Your task to perform on an android device: Open privacy settings Image 0: 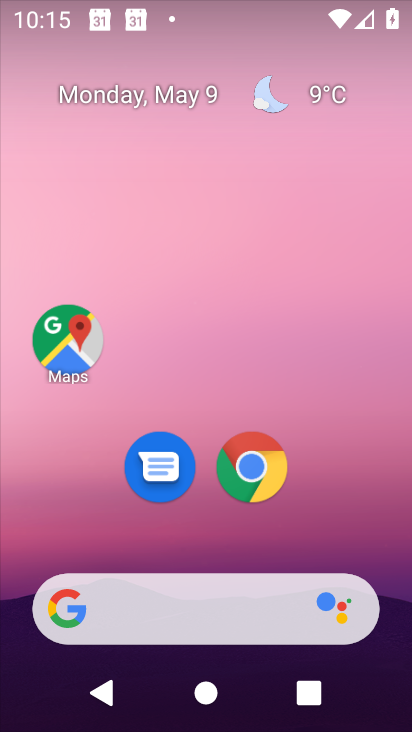
Step 0: drag from (339, 463) to (302, 8)
Your task to perform on an android device: Open privacy settings Image 1: 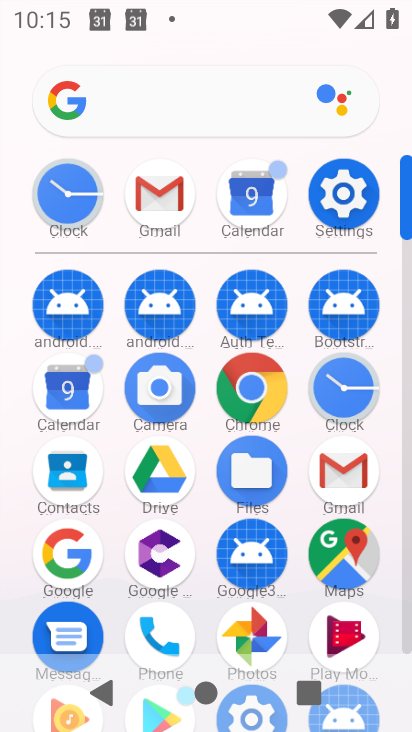
Step 1: click (340, 206)
Your task to perform on an android device: Open privacy settings Image 2: 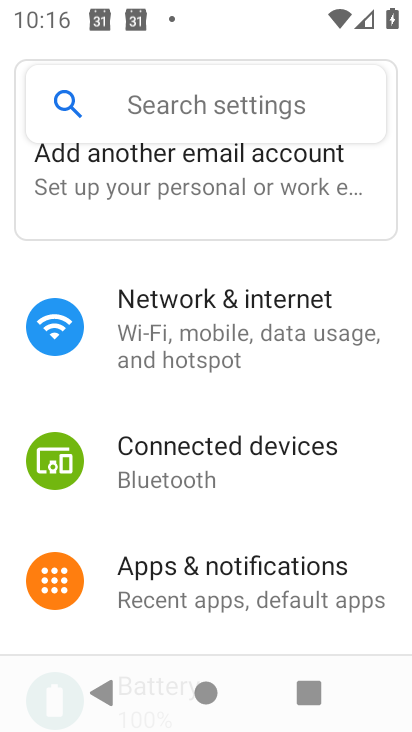
Step 2: drag from (398, 619) to (411, 64)
Your task to perform on an android device: Open privacy settings Image 3: 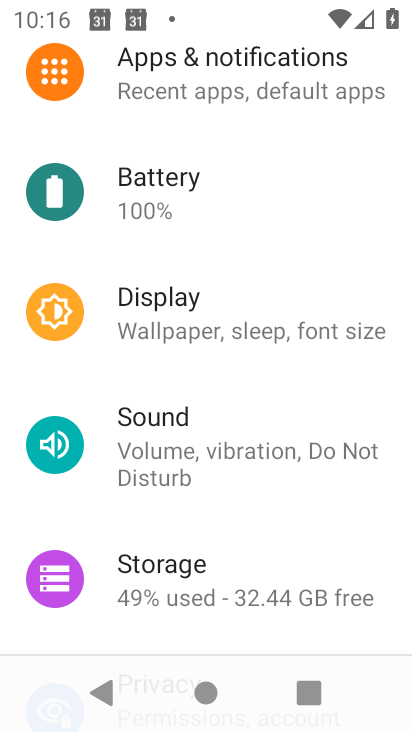
Step 3: drag from (379, 550) to (363, 191)
Your task to perform on an android device: Open privacy settings Image 4: 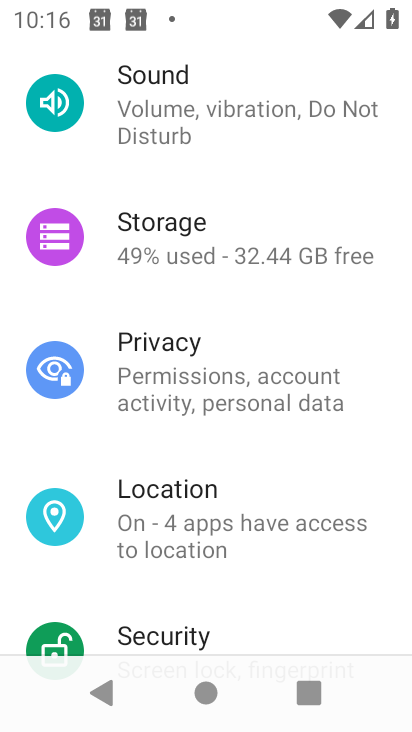
Step 4: click (159, 374)
Your task to perform on an android device: Open privacy settings Image 5: 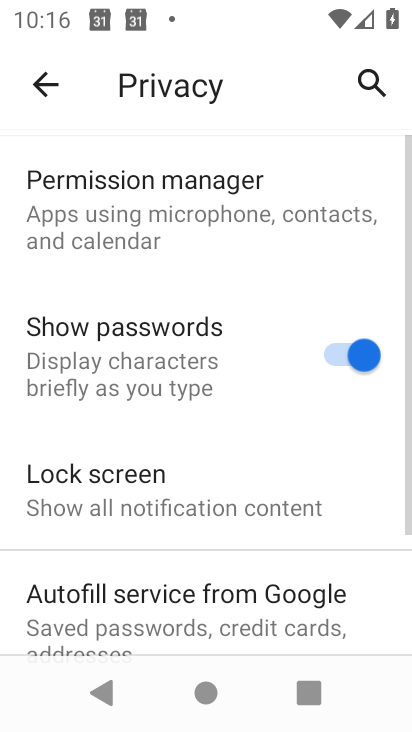
Step 5: task complete